Your task to perform on an android device: Open battery settings Image 0: 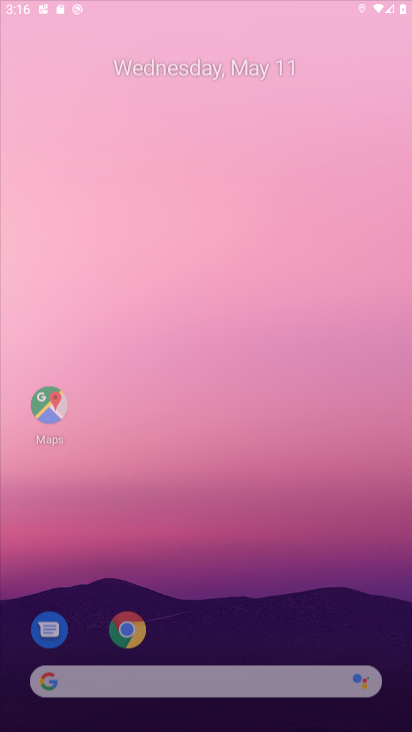
Step 0: drag from (220, 676) to (152, 55)
Your task to perform on an android device: Open battery settings Image 1: 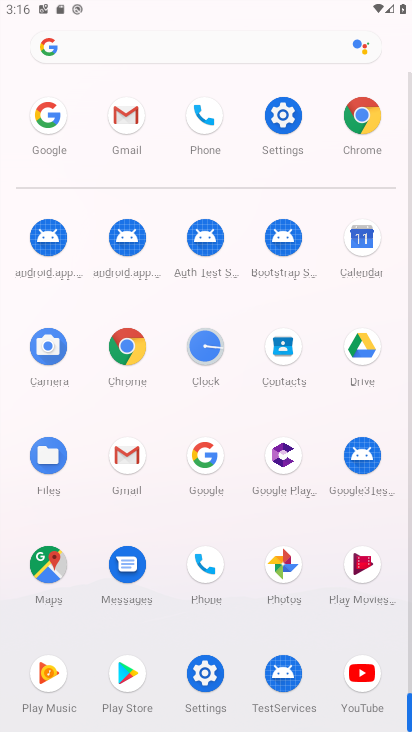
Step 1: click (206, 680)
Your task to perform on an android device: Open battery settings Image 2: 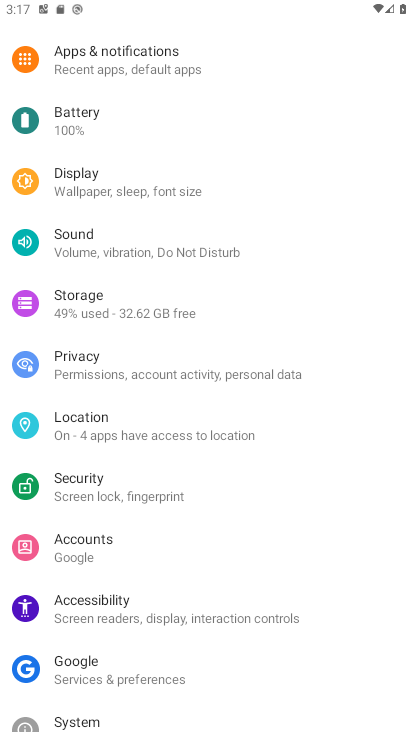
Step 2: click (82, 109)
Your task to perform on an android device: Open battery settings Image 3: 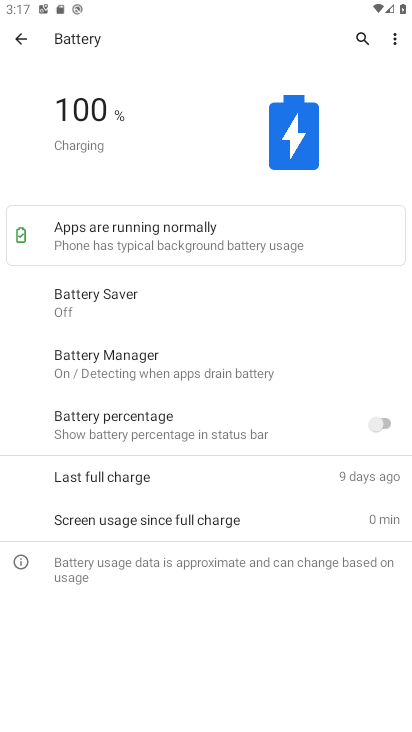
Step 3: task complete